Your task to perform on an android device: Turn off the flashlight Image 0: 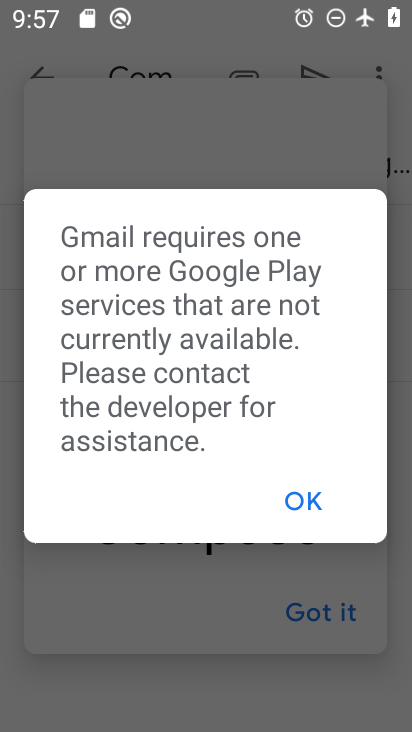
Step 0: press home button
Your task to perform on an android device: Turn off the flashlight Image 1: 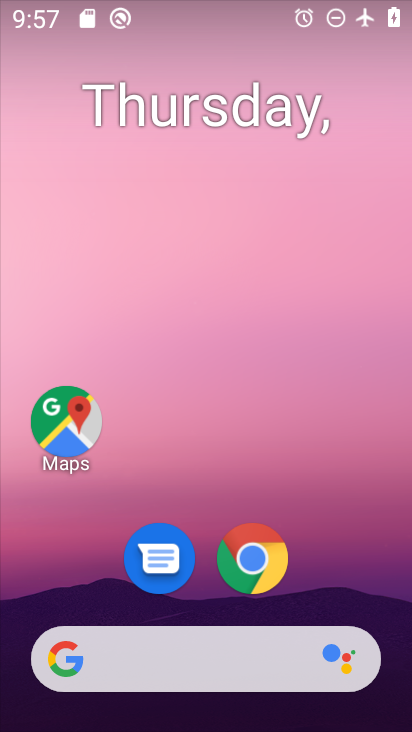
Step 1: drag from (204, 13) to (202, 643)
Your task to perform on an android device: Turn off the flashlight Image 2: 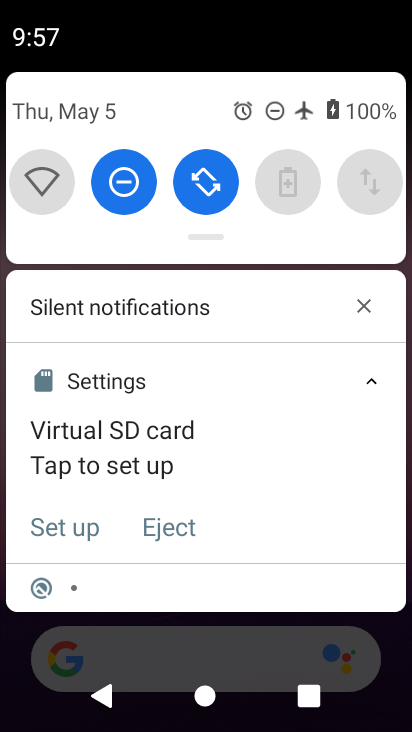
Step 2: drag from (207, 232) to (200, 583)
Your task to perform on an android device: Turn off the flashlight Image 3: 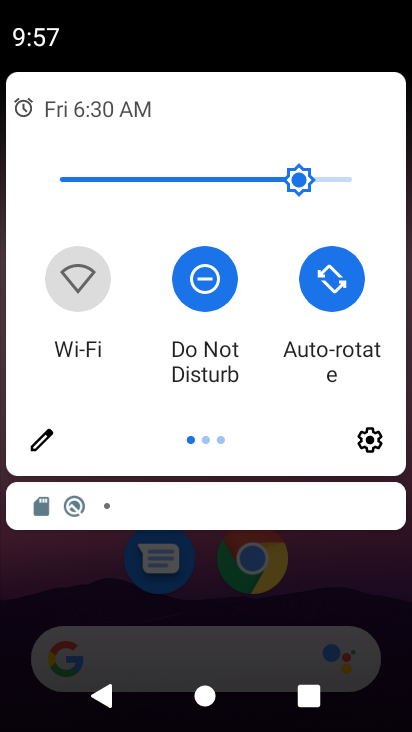
Step 3: click (34, 432)
Your task to perform on an android device: Turn off the flashlight Image 4: 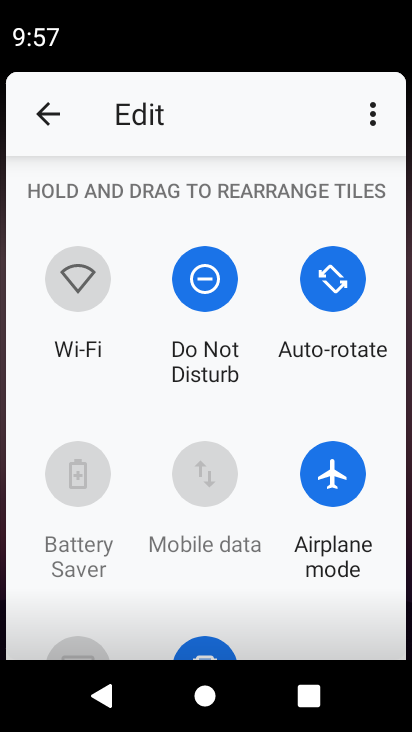
Step 4: task complete